Your task to perform on an android device: Open Android settings Image 0: 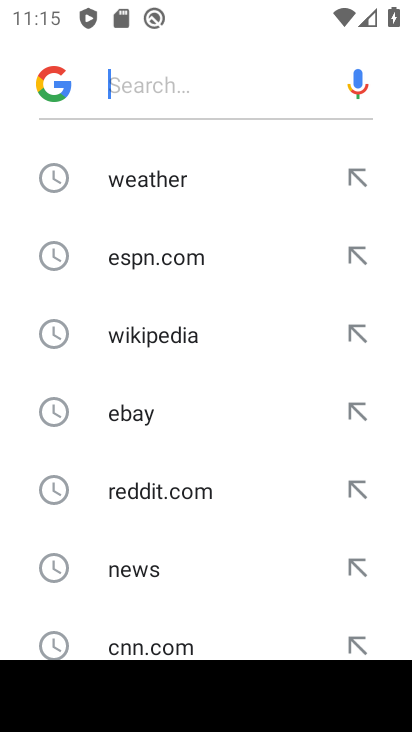
Step 0: press home button
Your task to perform on an android device: Open Android settings Image 1: 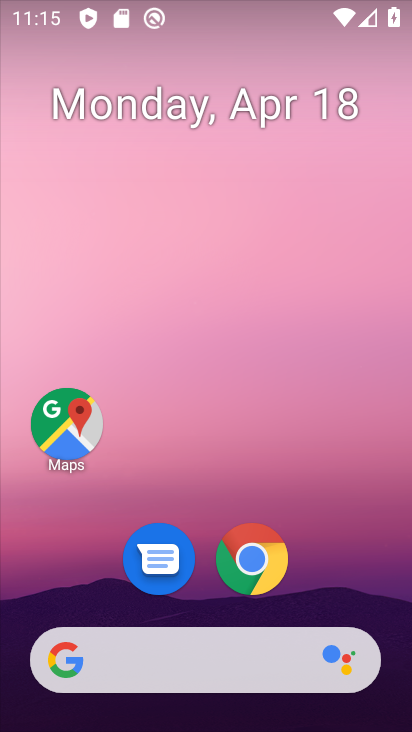
Step 1: drag from (287, 625) to (259, 44)
Your task to perform on an android device: Open Android settings Image 2: 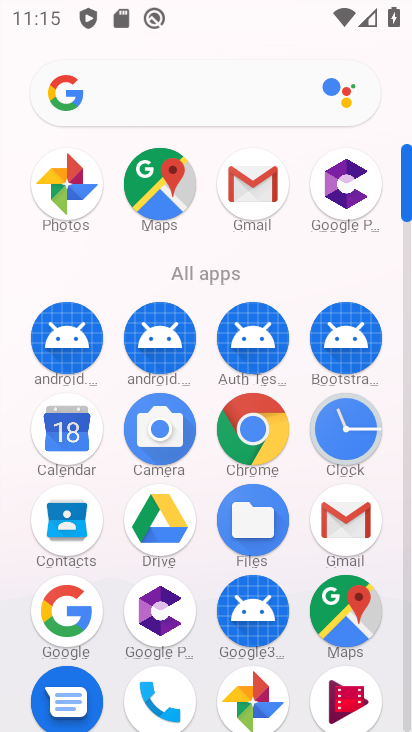
Step 2: drag from (294, 562) to (267, 118)
Your task to perform on an android device: Open Android settings Image 3: 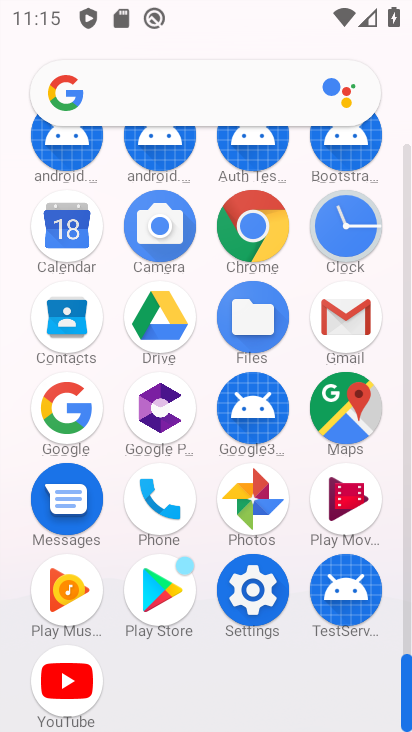
Step 3: click (240, 600)
Your task to perform on an android device: Open Android settings Image 4: 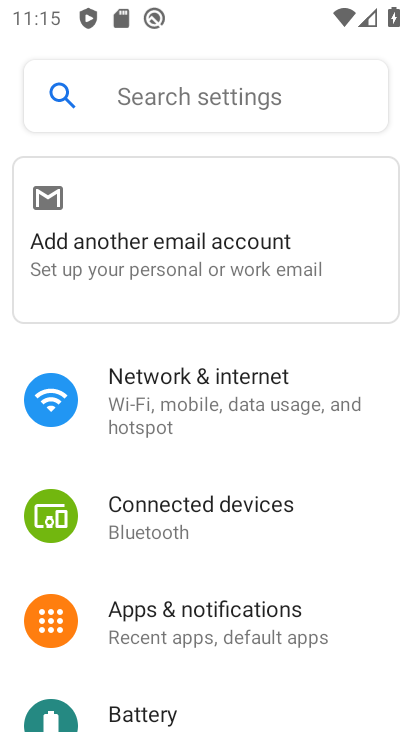
Step 4: drag from (245, 633) to (280, 314)
Your task to perform on an android device: Open Android settings Image 5: 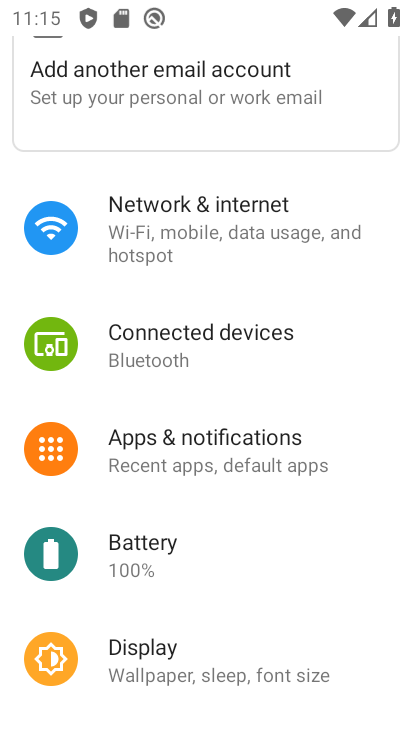
Step 5: drag from (297, 676) to (285, 202)
Your task to perform on an android device: Open Android settings Image 6: 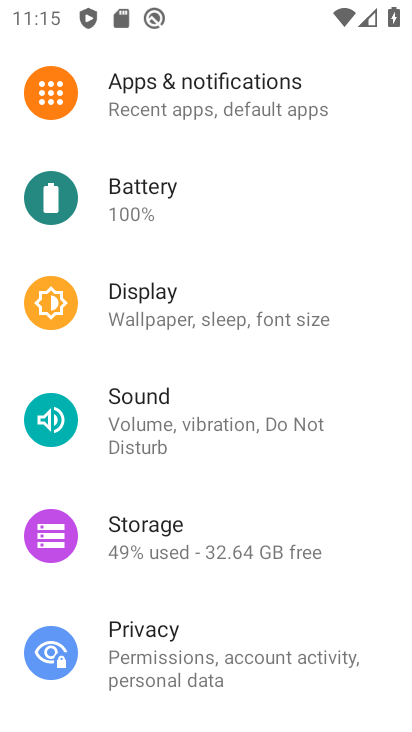
Step 6: drag from (278, 647) to (275, 263)
Your task to perform on an android device: Open Android settings Image 7: 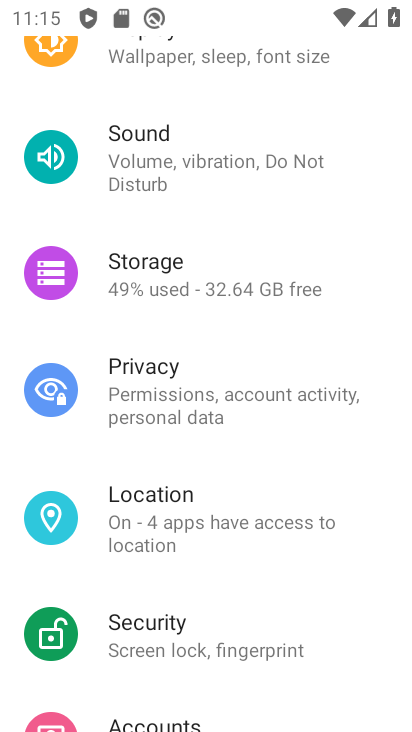
Step 7: drag from (296, 667) to (287, 299)
Your task to perform on an android device: Open Android settings Image 8: 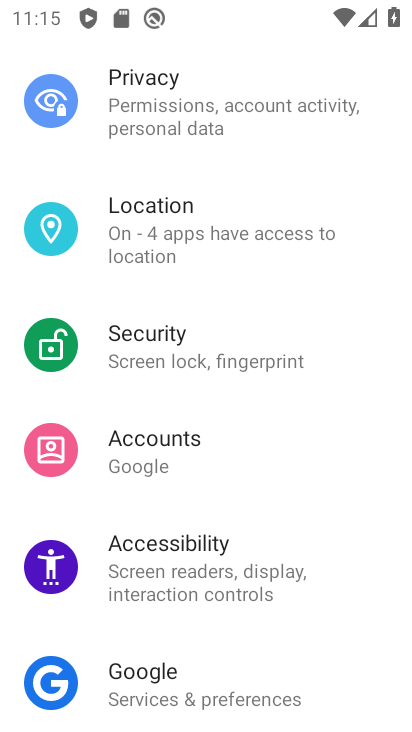
Step 8: drag from (327, 670) to (280, 227)
Your task to perform on an android device: Open Android settings Image 9: 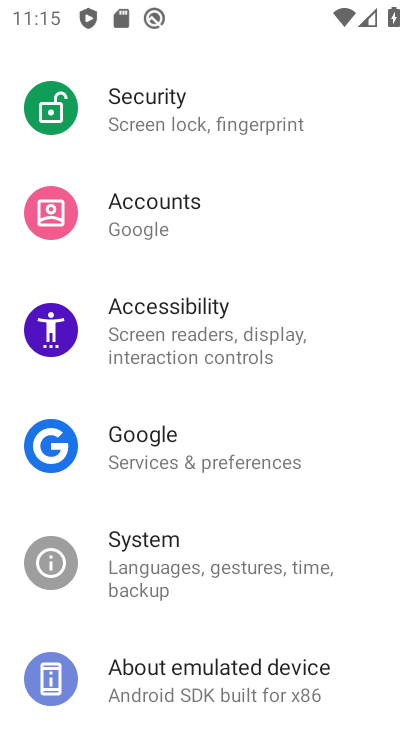
Step 9: click (309, 685)
Your task to perform on an android device: Open Android settings Image 10: 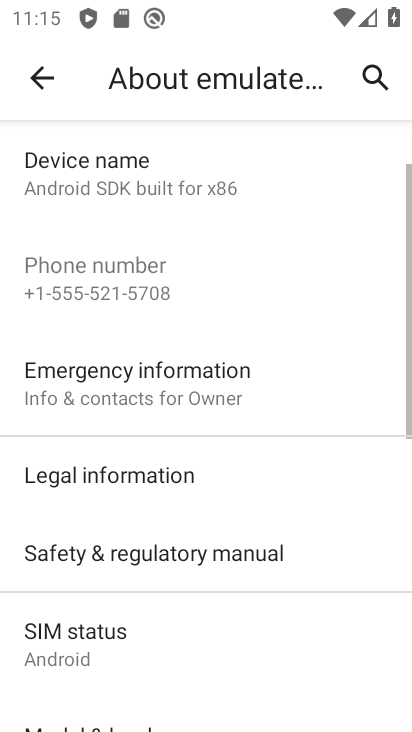
Step 10: drag from (344, 692) to (342, 346)
Your task to perform on an android device: Open Android settings Image 11: 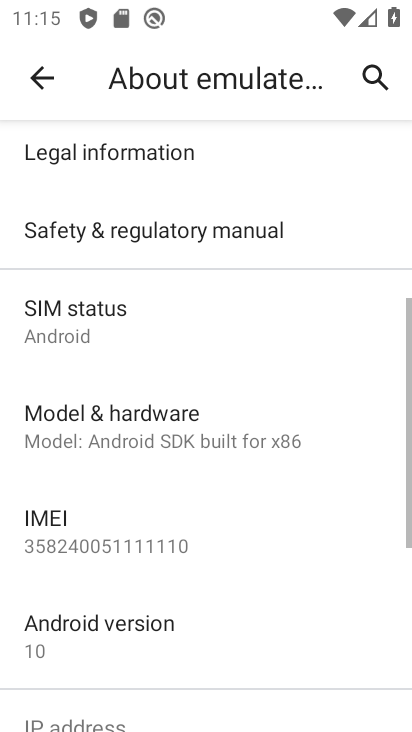
Step 11: drag from (387, 689) to (379, 503)
Your task to perform on an android device: Open Android settings Image 12: 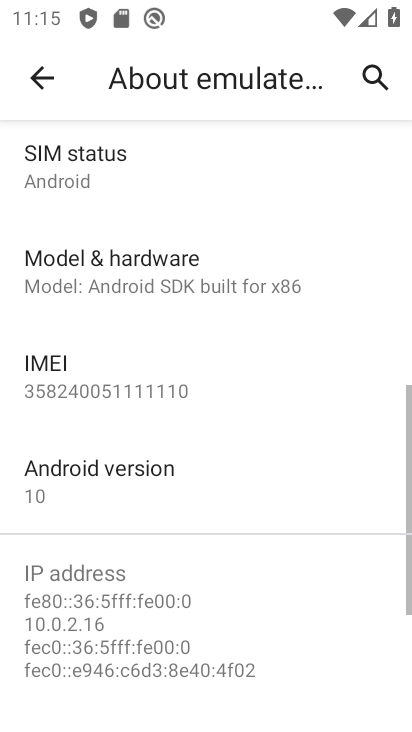
Step 12: drag from (340, 620) to (338, 558)
Your task to perform on an android device: Open Android settings Image 13: 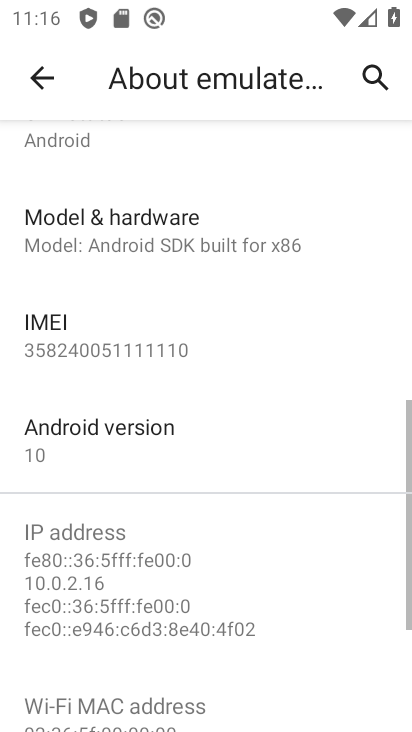
Step 13: drag from (234, 277) to (219, 728)
Your task to perform on an android device: Open Android settings Image 14: 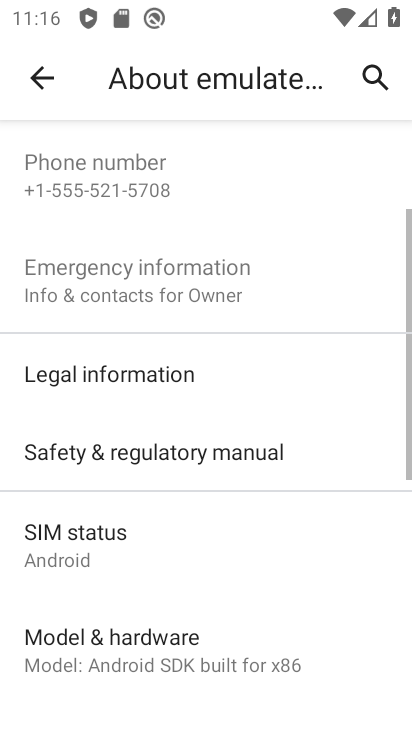
Step 14: drag from (205, 647) to (171, 220)
Your task to perform on an android device: Open Android settings Image 15: 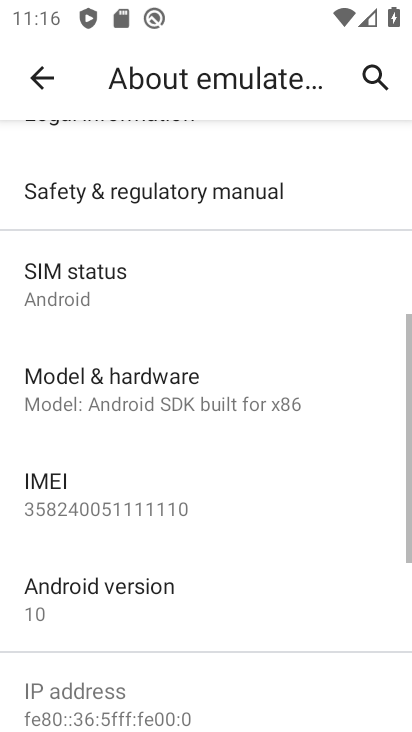
Step 15: drag from (198, 560) to (205, 206)
Your task to perform on an android device: Open Android settings Image 16: 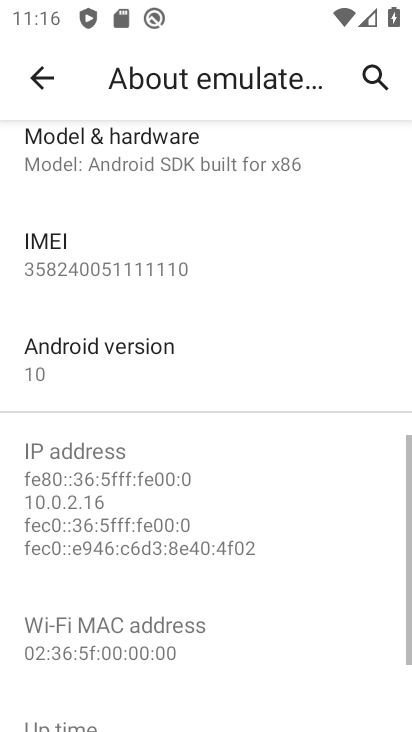
Step 16: click (156, 365)
Your task to perform on an android device: Open Android settings Image 17: 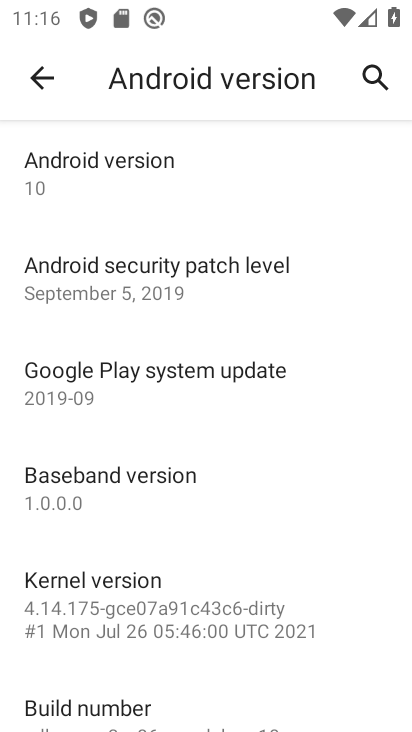
Step 17: task complete